Your task to perform on an android device: set the stopwatch Image 0: 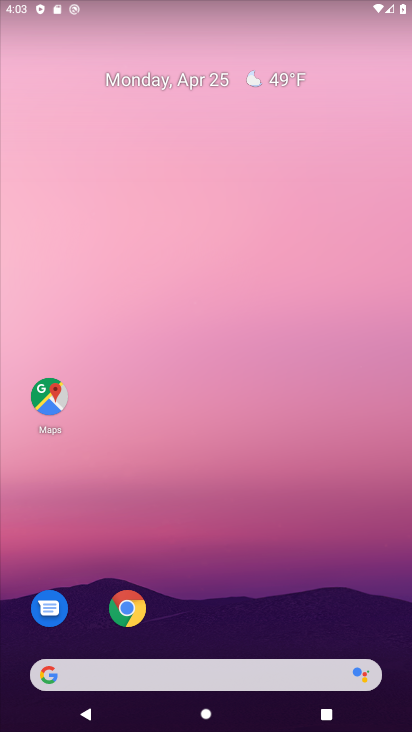
Step 0: drag from (173, 621) to (177, 282)
Your task to perform on an android device: set the stopwatch Image 1: 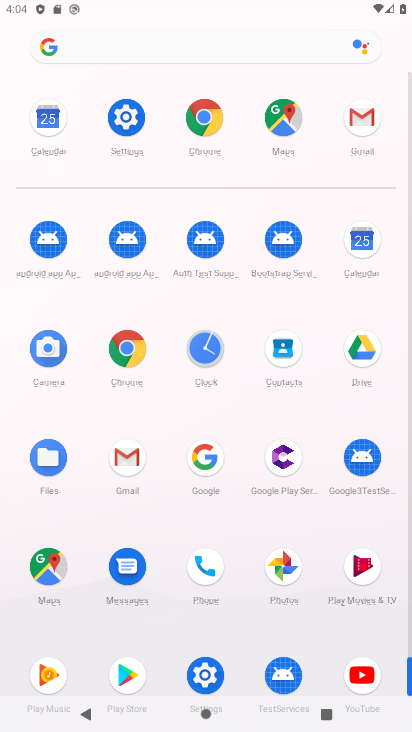
Step 1: click (205, 357)
Your task to perform on an android device: set the stopwatch Image 2: 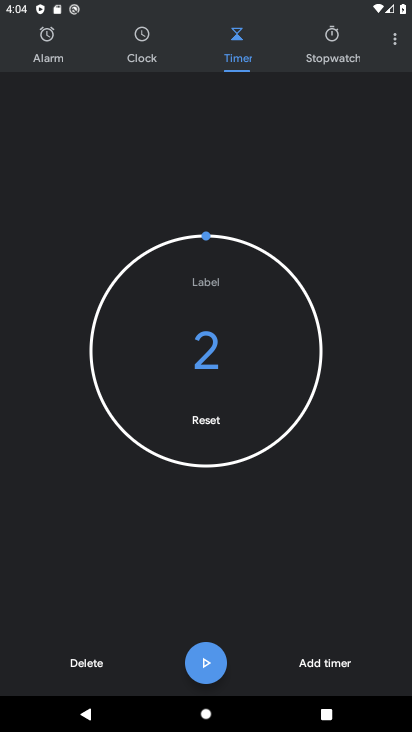
Step 2: click (336, 54)
Your task to perform on an android device: set the stopwatch Image 3: 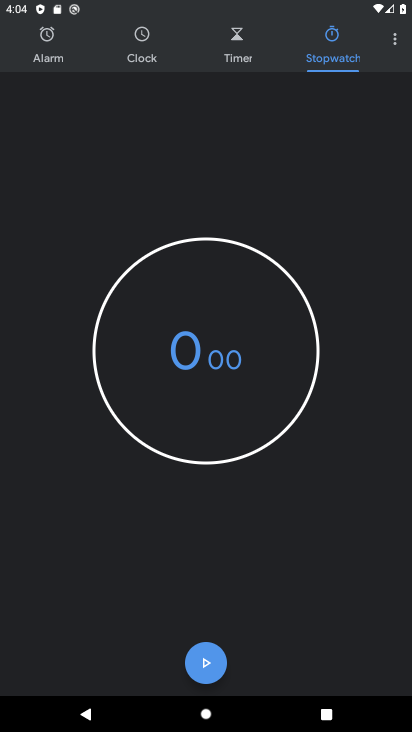
Step 3: click (203, 678)
Your task to perform on an android device: set the stopwatch Image 4: 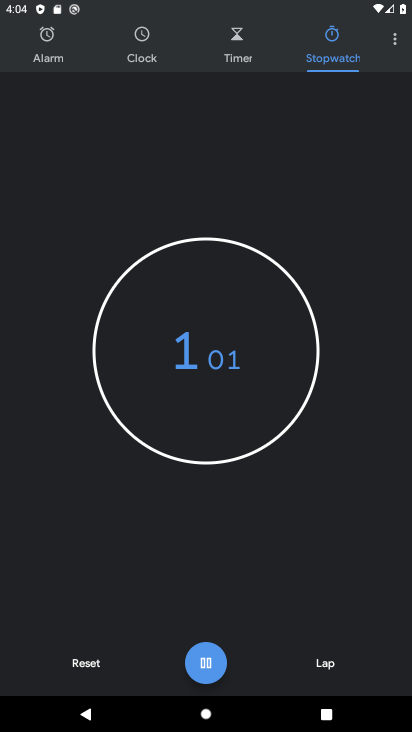
Step 4: task complete